Your task to perform on an android device: clear history in the chrome app Image 0: 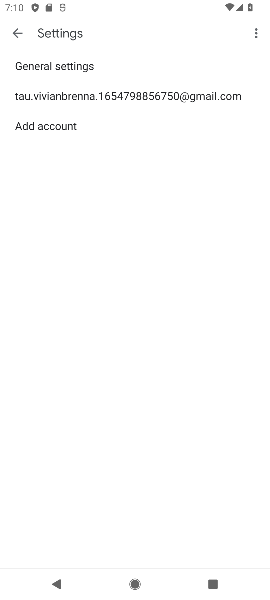
Step 0: press home button
Your task to perform on an android device: clear history in the chrome app Image 1: 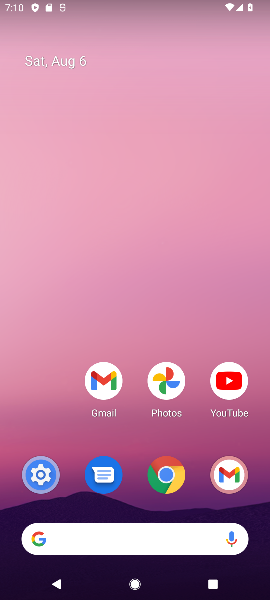
Step 1: click (163, 457)
Your task to perform on an android device: clear history in the chrome app Image 2: 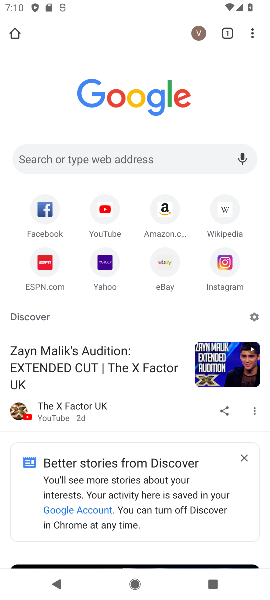
Step 2: click (252, 29)
Your task to perform on an android device: clear history in the chrome app Image 3: 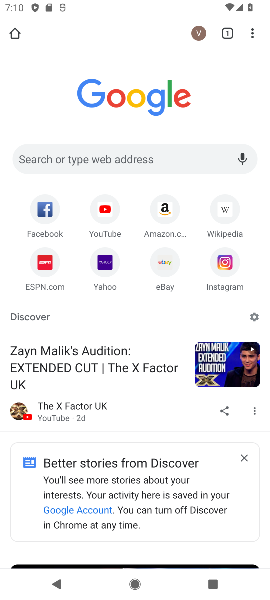
Step 3: drag from (252, 29) to (149, 135)
Your task to perform on an android device: clear history in the chrome app Image 4: 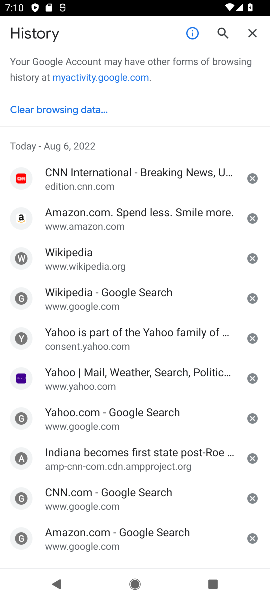
Step 4: click (15, 113)
Your task to perform on an android device: clear history in the chrome app Image 5: 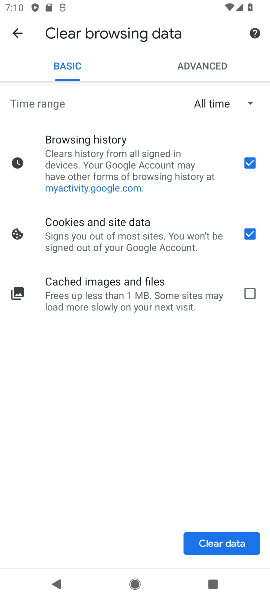
Step 5: click (247, 295)
Your task to perform on an android device: clear history in the chrome app Image 6: 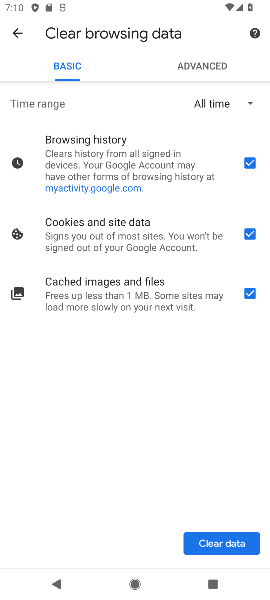
Step 6: click (224, 541)
Your task to perform on an android device: clear history in the chrome app Image 7: 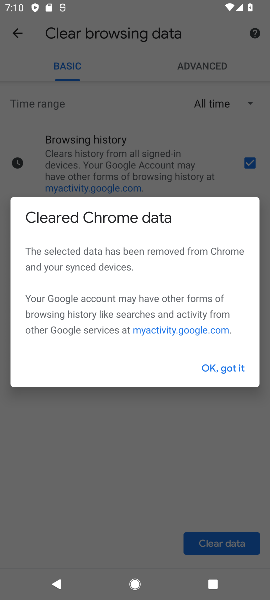
Step 7: click (231, 368)
Your task to perform on an android device: clear history in the chrome app Image 8: 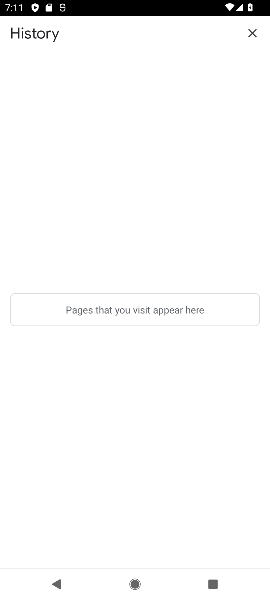
Step 8: task complete